Your task to perform on an android device: see tabs open on other devices in the chrome app Image 0: 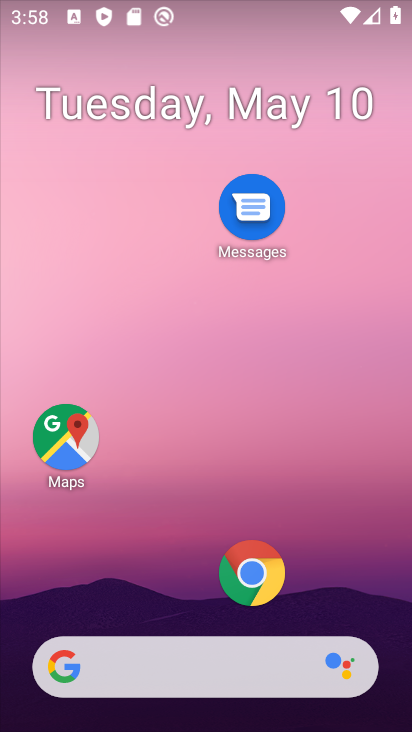
Step 0: click (252, 571)
Your task to perform on an android device: see tabs open on other devices in the chrome app Image 1: 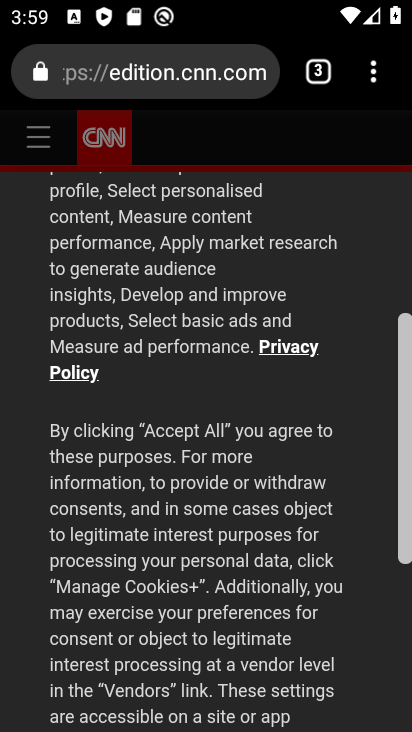
Step 1: task complete